Your task to perform on an android device: turn off priority inbox in the gmail app Image 0: 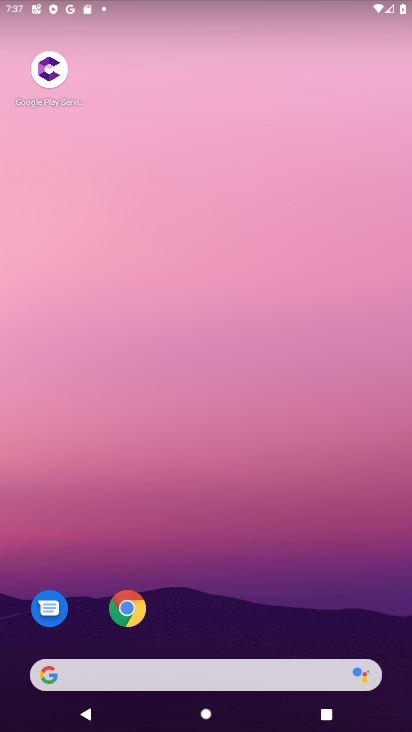
Step 0: drag from (122, 445) to (152, 28)
Your task to perform on an android device: turn off priority inbox in the gmail app Image 1: 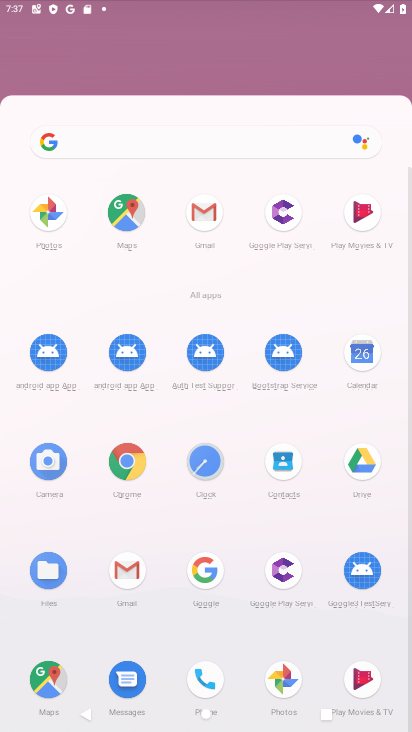
Step 1: click (152, 236)
Your task to perform on an android device: turn off priority inbox in the gmail app Image 2: 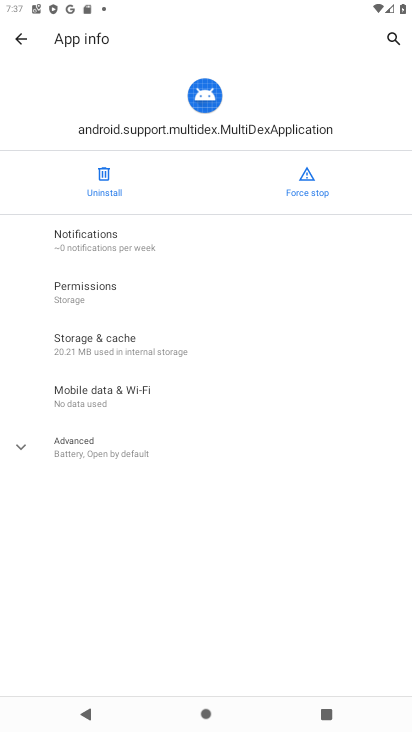
Step 2: click (13, 38)
Your task to perform on an android device: turn off priority inbox in the gmail app Image 3: 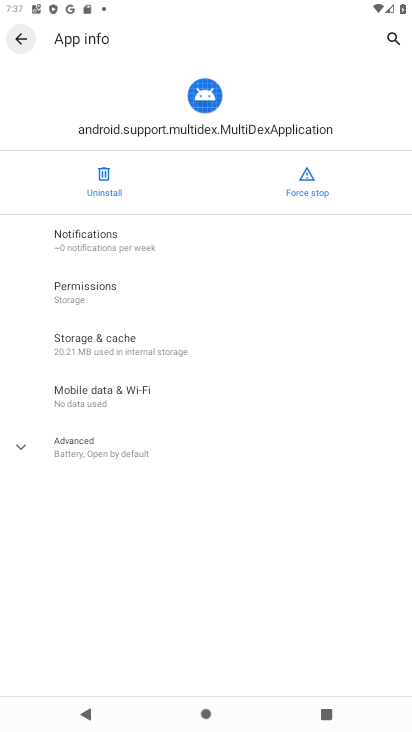
Step 3: click (13, 38)
Your task to perform on an android device: turn off priority inbox in the gmail app Image 4: 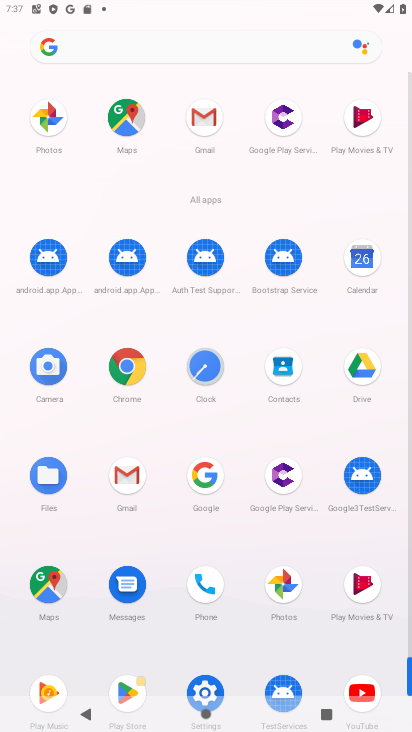
Step 4: click (211, 112)
Your task to perform on an android device: turn off priority inbox in the gmail app Image 5: 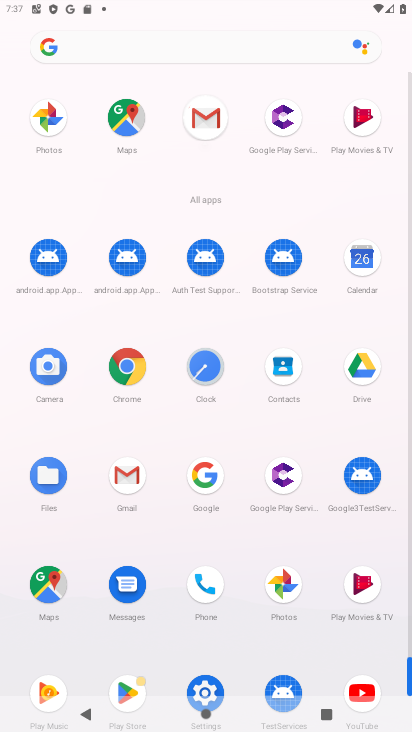
Step 5: click (207, 120)
Your task to perform on an android device: turn off priority inbox in the gmail app Image 6: 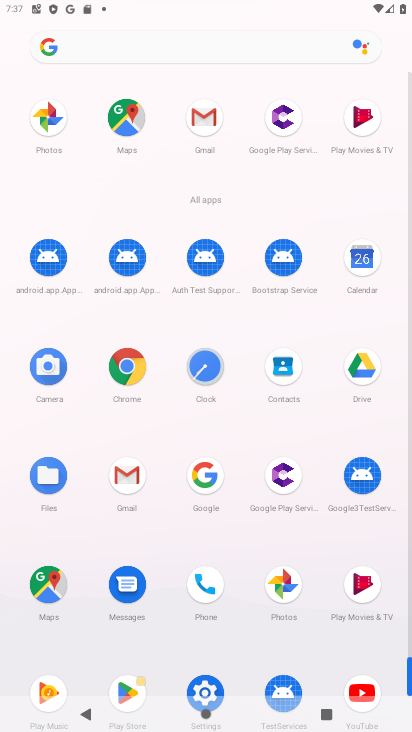
Step 6: click (207, 123)
Your task to perform on an android device: turn off priority inbox in the gmail app Image 7: 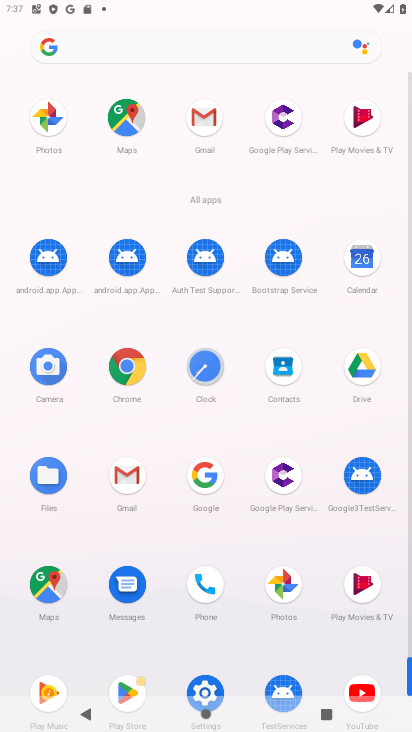
Step 7: click (206, 124)
Your task to perform on an android device: turn off priority inbox in the gmail app Image 8: 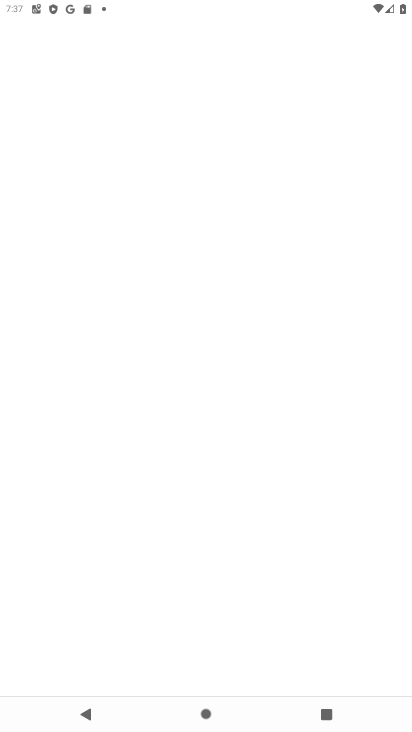
Step 8: click (205, 125)
Your task to perform on an android device: turn off priority inbox in the gmail app Image 9: 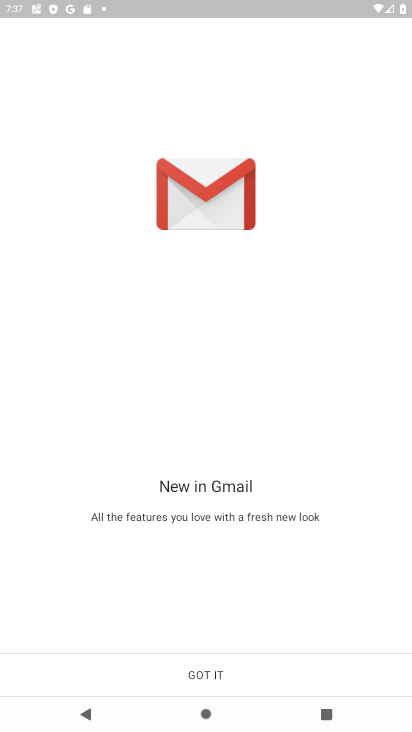
Step 9: click (209, 664)
Your task to perform on an android device: turn off priority inbox in the gmail app Image 10: 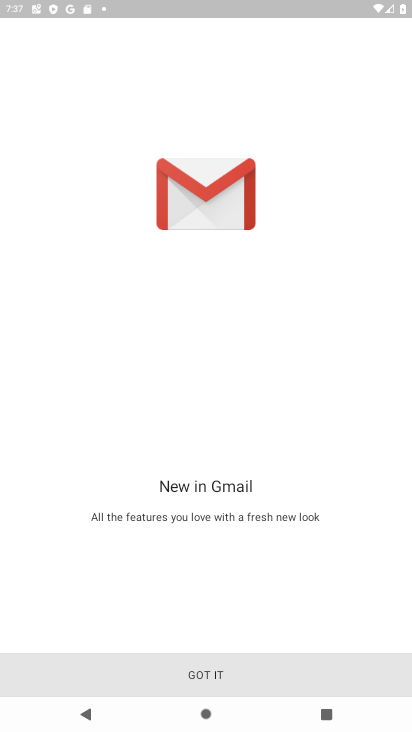
Step 10: click (218, 675)
Your task to perform on an android device: turn off priority inbox in the gmail app Image 11: 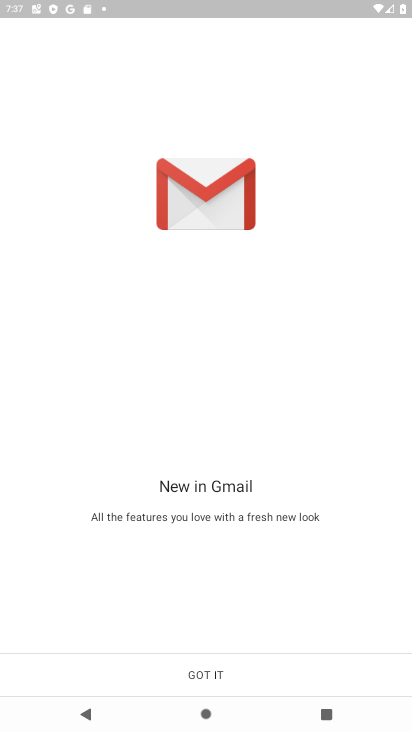
Step 11: click (218, 675)
Your task to perform on an android device: turn off priority inbox in the gmail app Image 12: 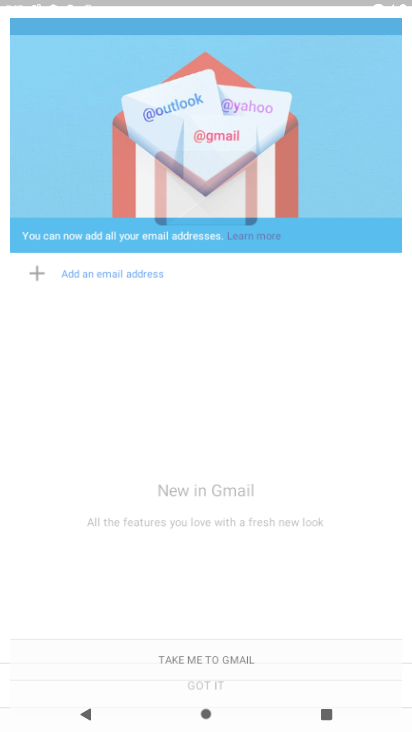
Step 12: click (218, 675)
Your task to perform on an android device: turn off priority inbox in the gmail app Image 13: 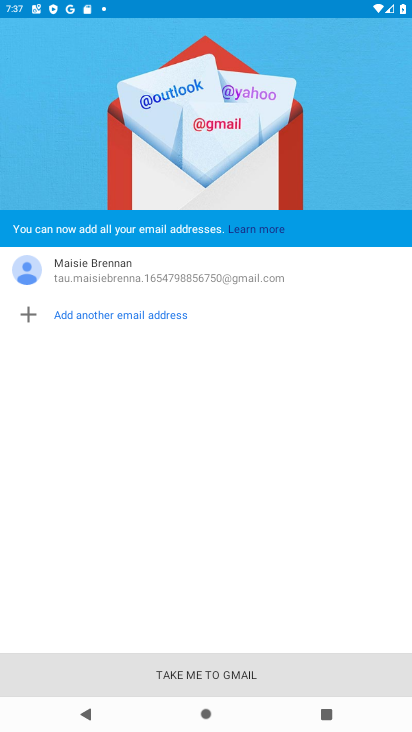
Step 13: click (222, 671)
Your task to perform on an android device: turn off priority inbox in the gmail app Image 14: 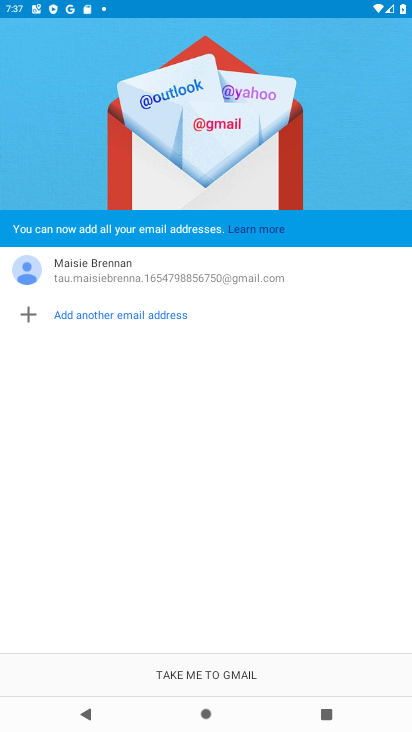
Step 14: click (222, 671)
Your task to perform on an android device: turn off priority inbox in the gmail app Image 15: 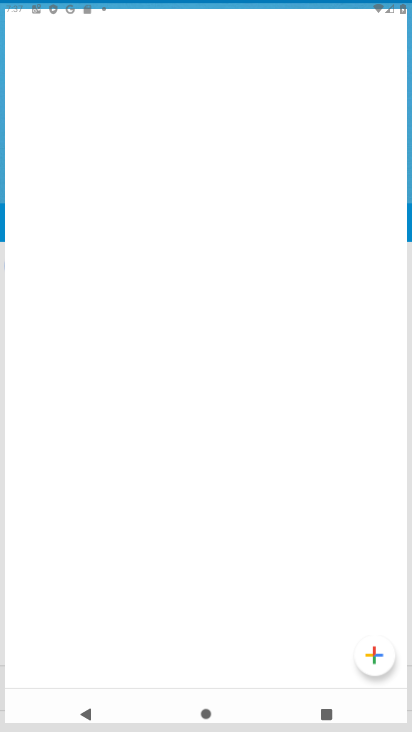
Step 15: click (226, 671)
Your task to perform on an android device: turn off priority inbox in the gmail app Image 16: 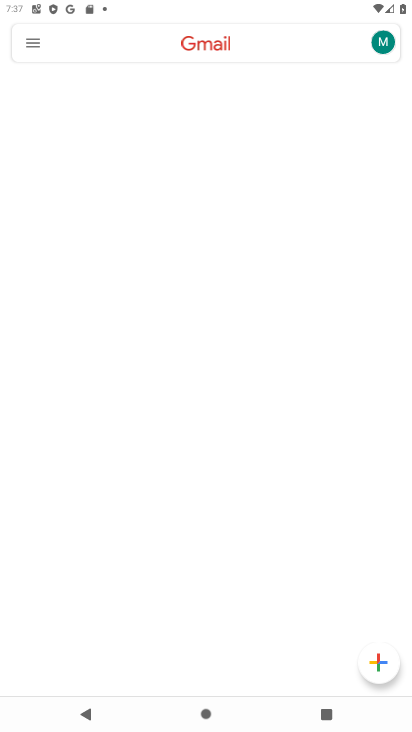
Step 16: click (226, 671)
Your task to perform on an android device: turn off priority inbox in the gmail app Image 17: 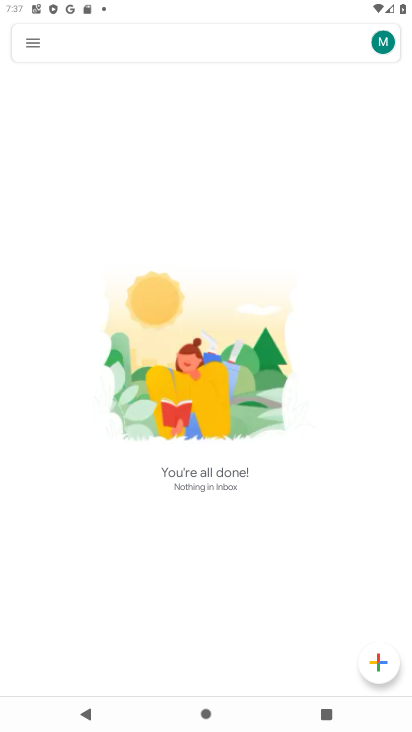
Step 17: click (35, 43)
Your task to perform on an android device: turn off priority inbox in the gmail app Image 18: 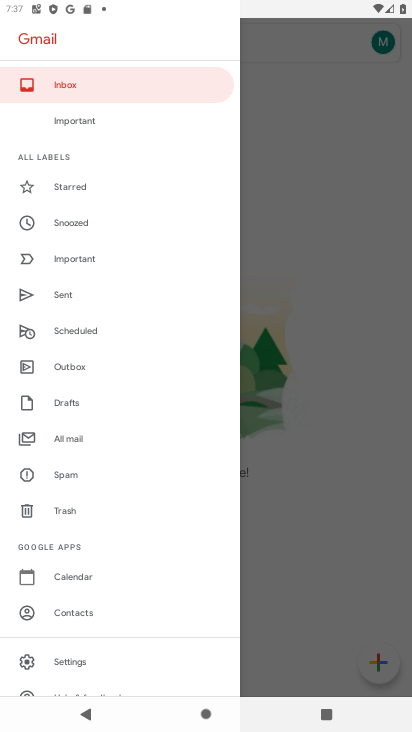
Step 18: drag from (80, 624) to (53, 202)
Your task to perform on an android device: turn off priority inbox in the gmail app Image 19: 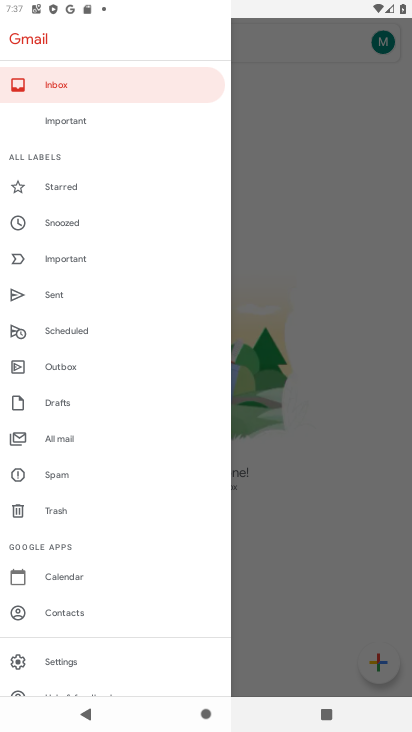
Step 19: drag from (73, 489) to (85, 238)
Your task to perform on an android device: turn off priority inbox in the gmail app Image 20: 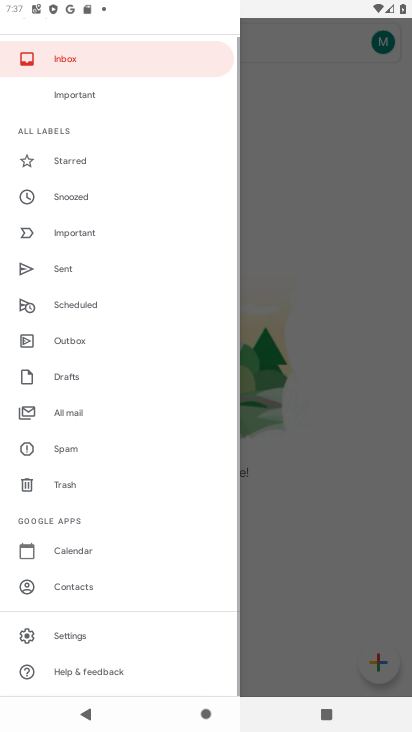
Step 20: drag from (102, 583) to (110, 289)
Your task to perform on an android device: turn off priority inbox in the gmail app Image 21: 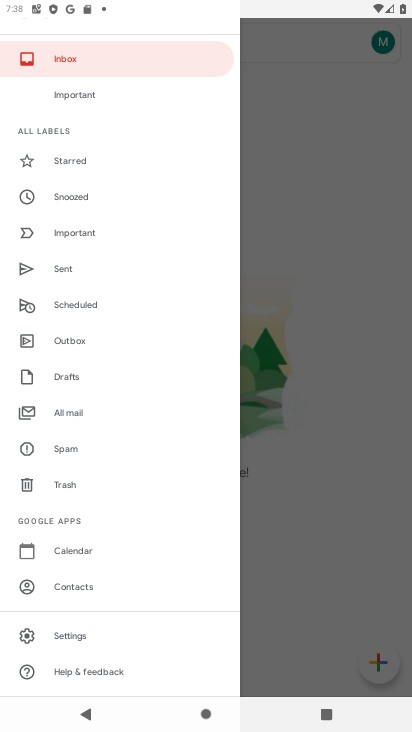
Step 21: click (63, 639)
Your task to perform on an android device: turn off priority inbox in the gmail app Image 22: 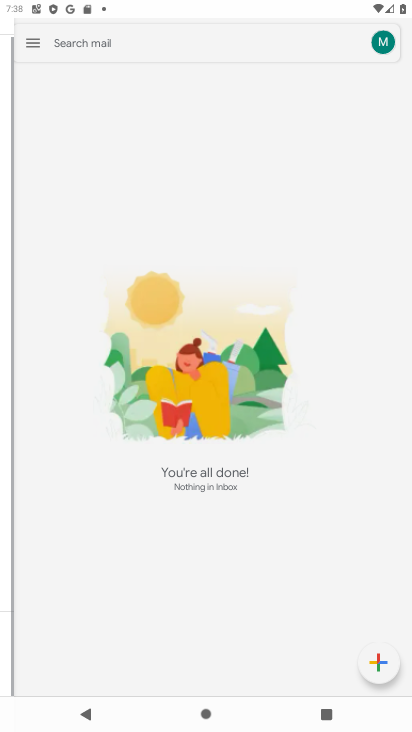
Step 22: click (65, 637)
Your task to perform on an android device: turn off priority inbox in the gmail app Image 23: 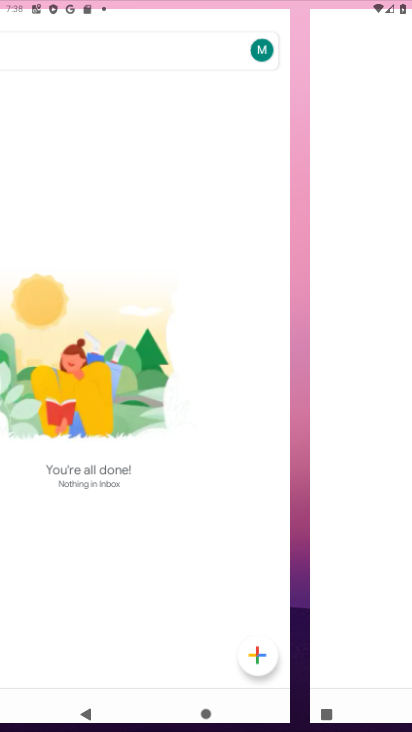
Step 23: click (76, 628)
Your task to perform on an android device: turn off priority inbox in the gmail app Image 24: 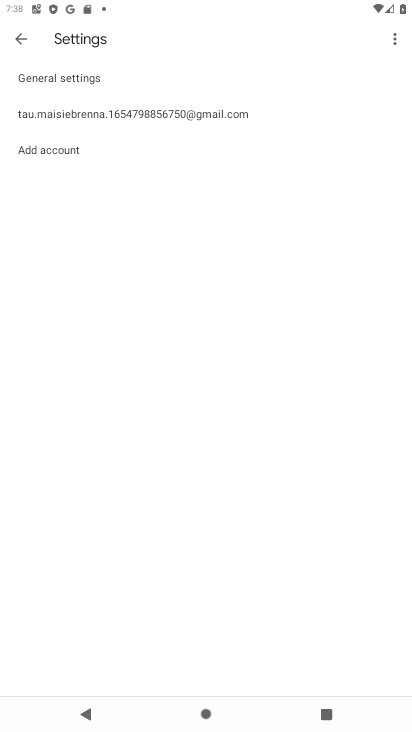
Step 24: click (84, 124)
Your task to perform on an android device: turn off priority inbox in the gmail app Image 25: 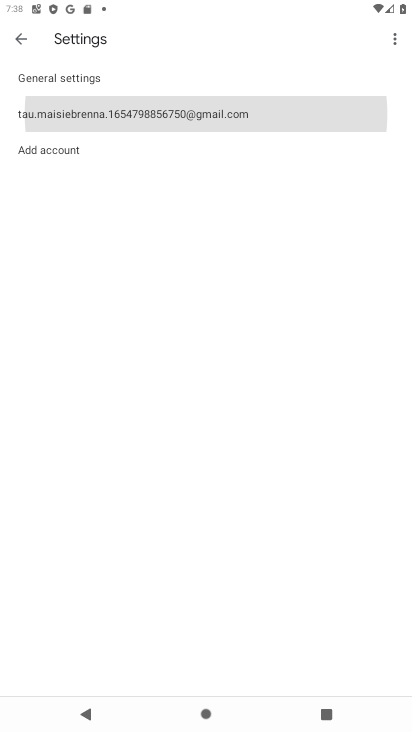
Step 25: click (85, 121)
Your task to perform on an android device: turn off priority inbox in the gmail app Image 26: 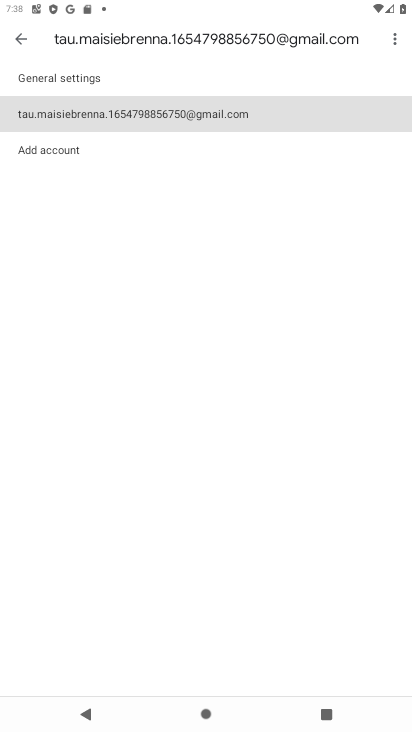
Step 26: click (85, 121)
Your task to perform on an android device: turn off priority inbox in the gmail app Image 27: 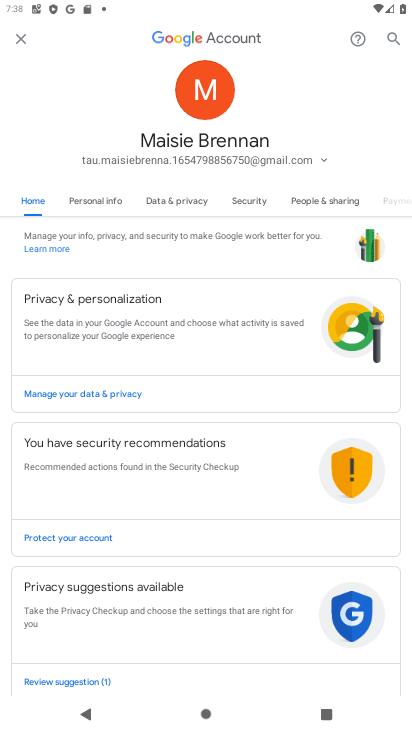
Step 27: click (22, 45)
Your task to perform on an android device: turn off priority inbox in the gmail app Image 28: 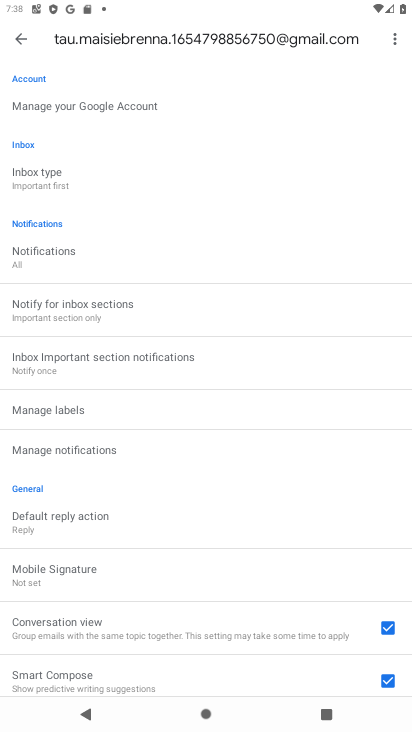
Step 28: click (47, 183)
Your task to perform on an android device: turn off priority inbox in the gmail app Image 29: 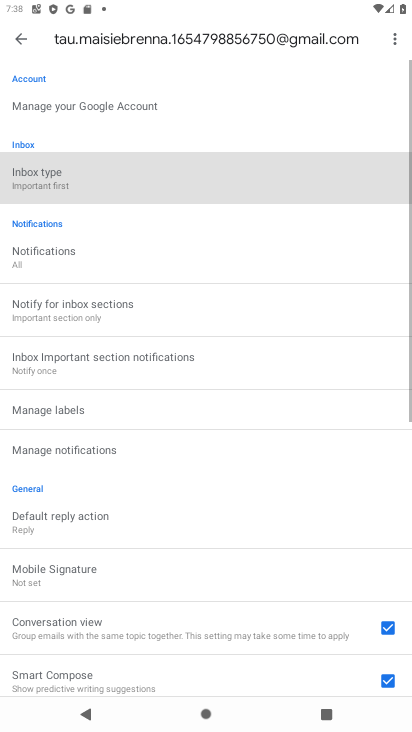
Step 29: click (47, 184)
Your task to perform on an android device: turn off priority inbox in the gmail app Image 30: 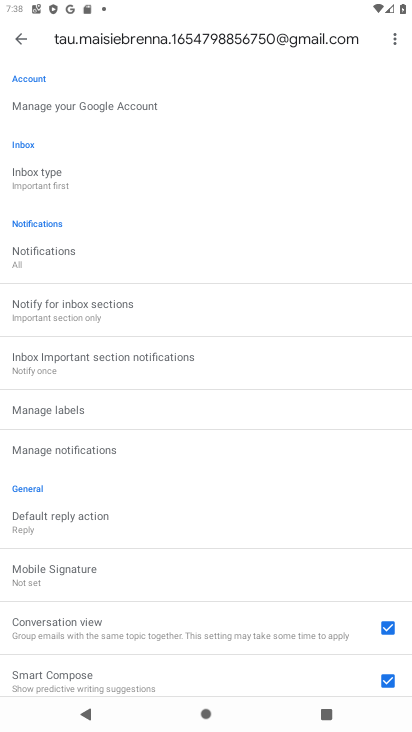
Step 30: click (41, 168)
Your task to perform on an android device: turn off priority inbox in the gmail app Image 31: 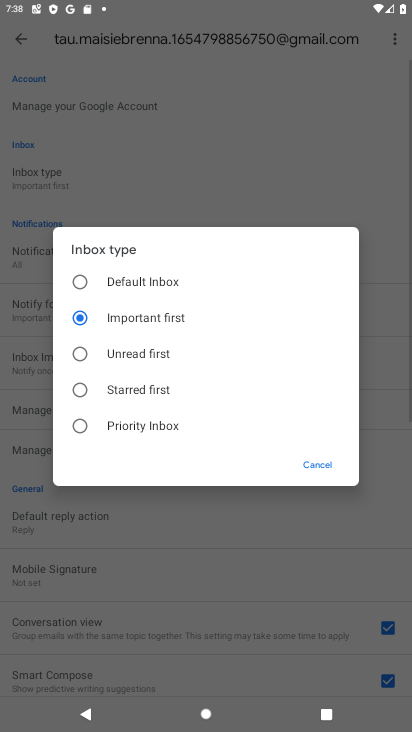
Step 31: click (83, 276)
Your task to perform on an android device: turn off priority inbox in the gmail app Image 32: 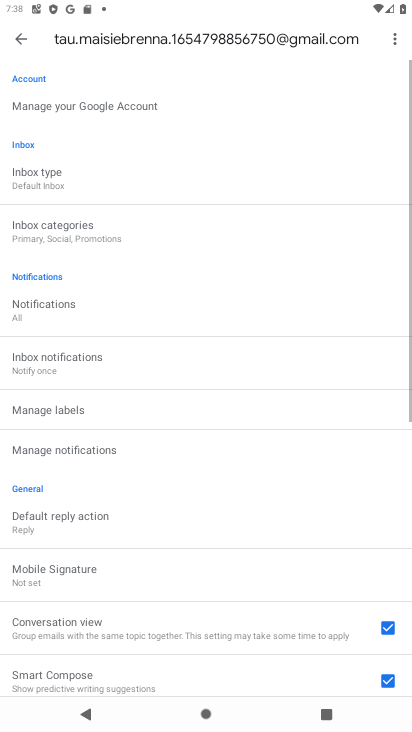
Step 32: task complete